Your task to perform on an android device: all mails in gmail Image 0: 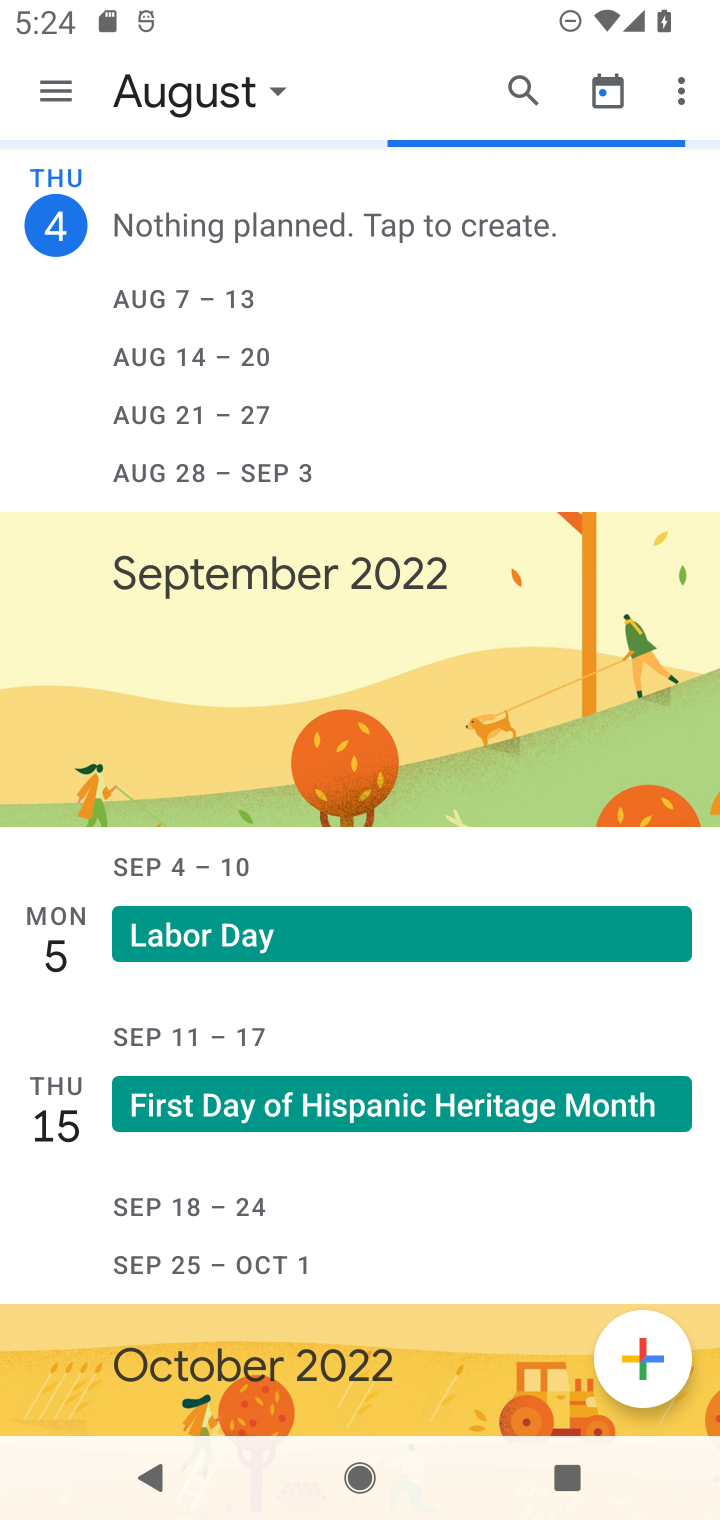
Step 0: press home button
Your task to perform on an android device: all mails in gmail Image 1: 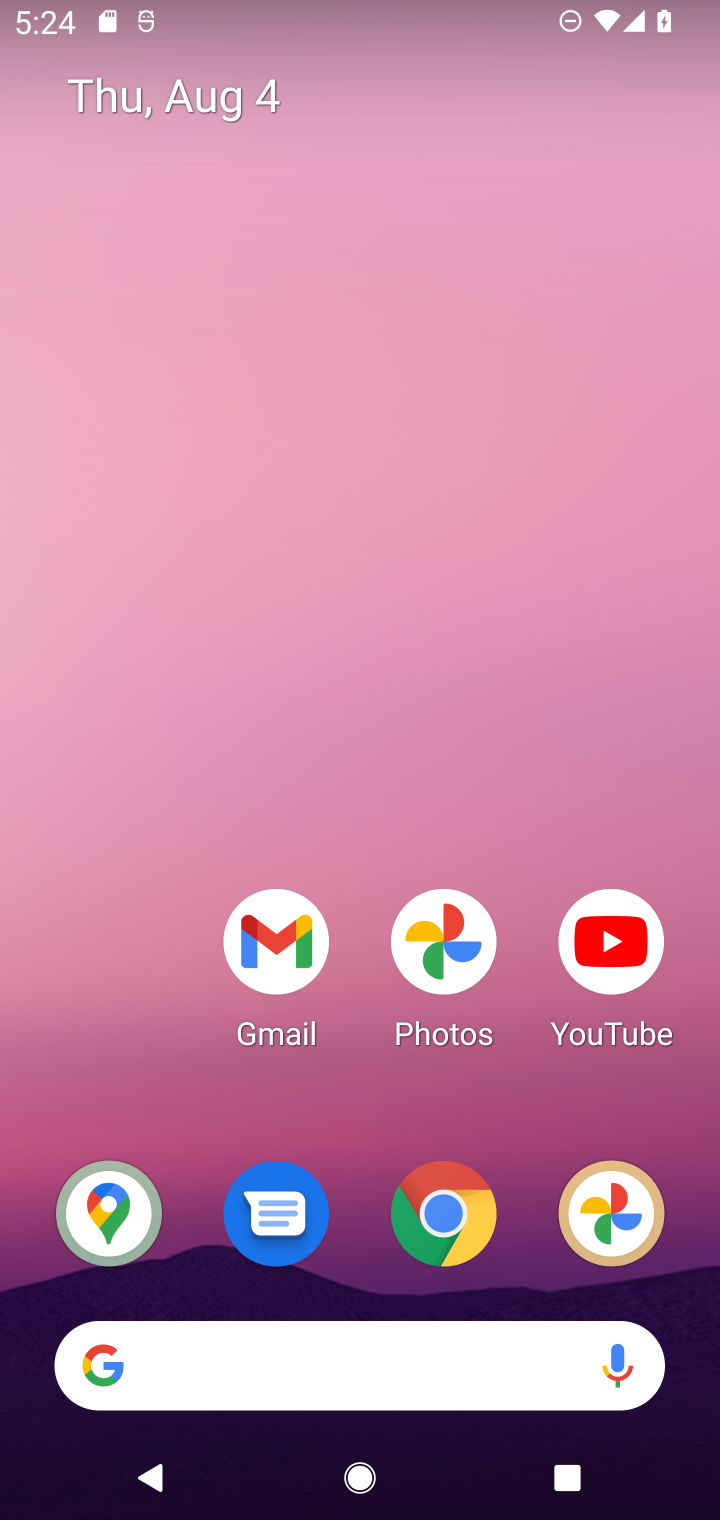
Step 1: drag from (177, 1140) to (188, 419)
Your task to perform on an android device: all mails in gmail Image 2: 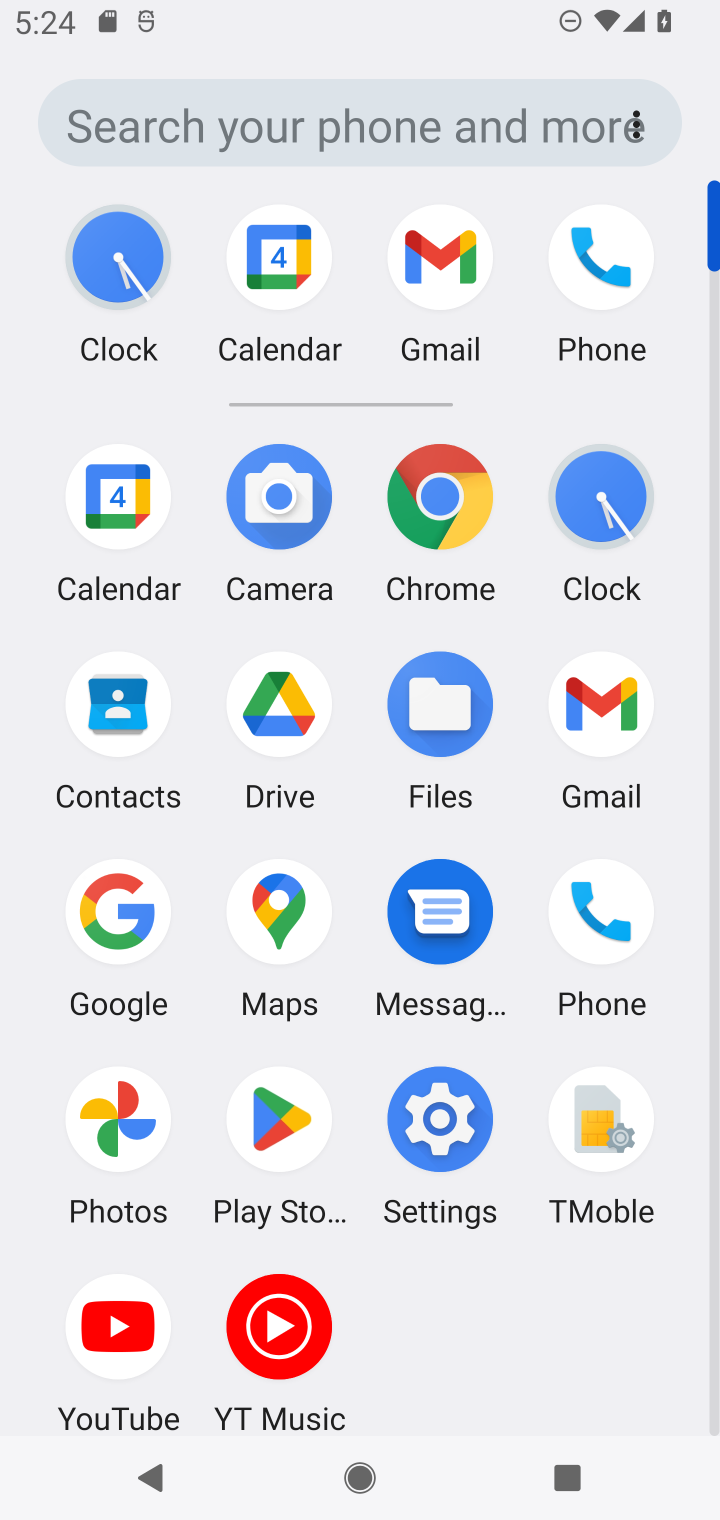
Step 2: click (595, 723)
Your task to perform on an android device: all mails in gmail Image 3: 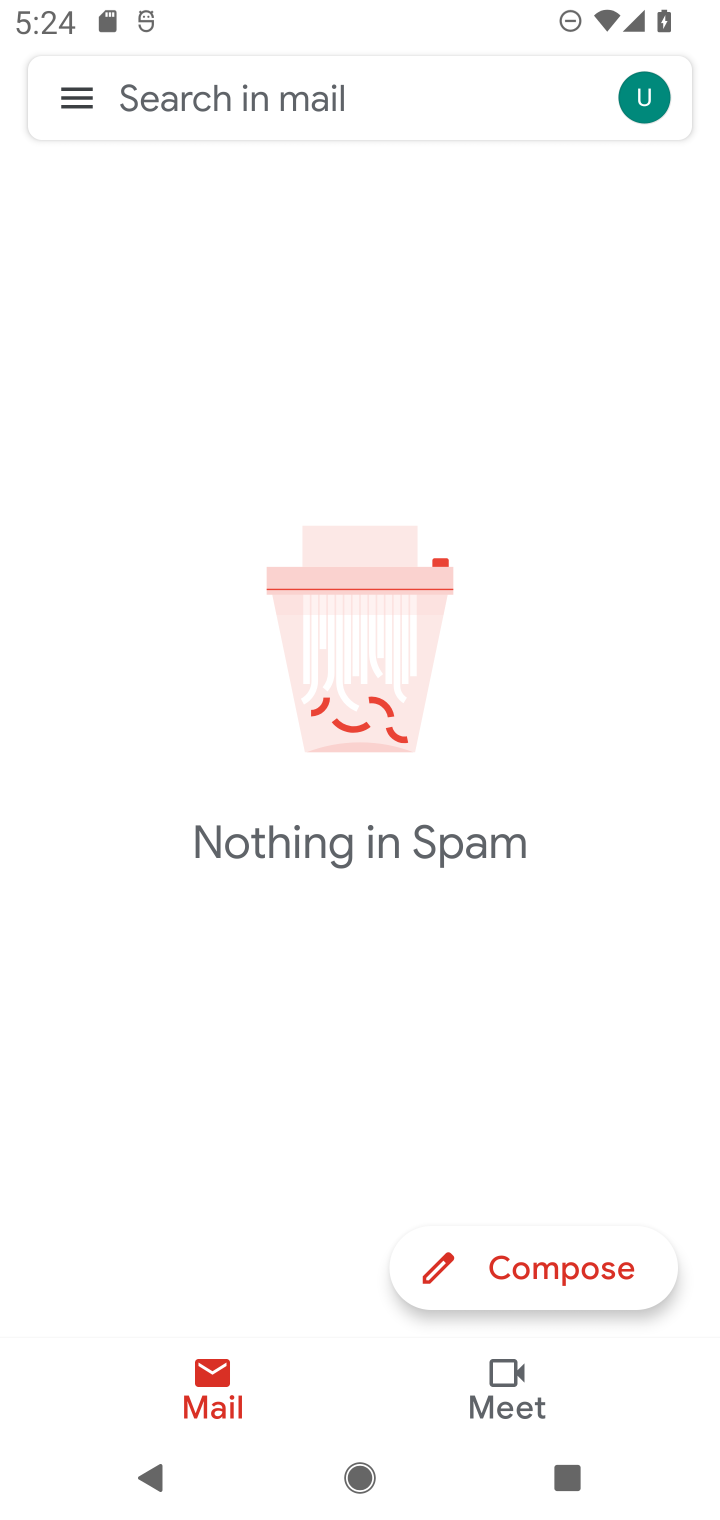
Step 3: click (79, 98)
Your task to perform on an android device: all mails in gmail Image 4: 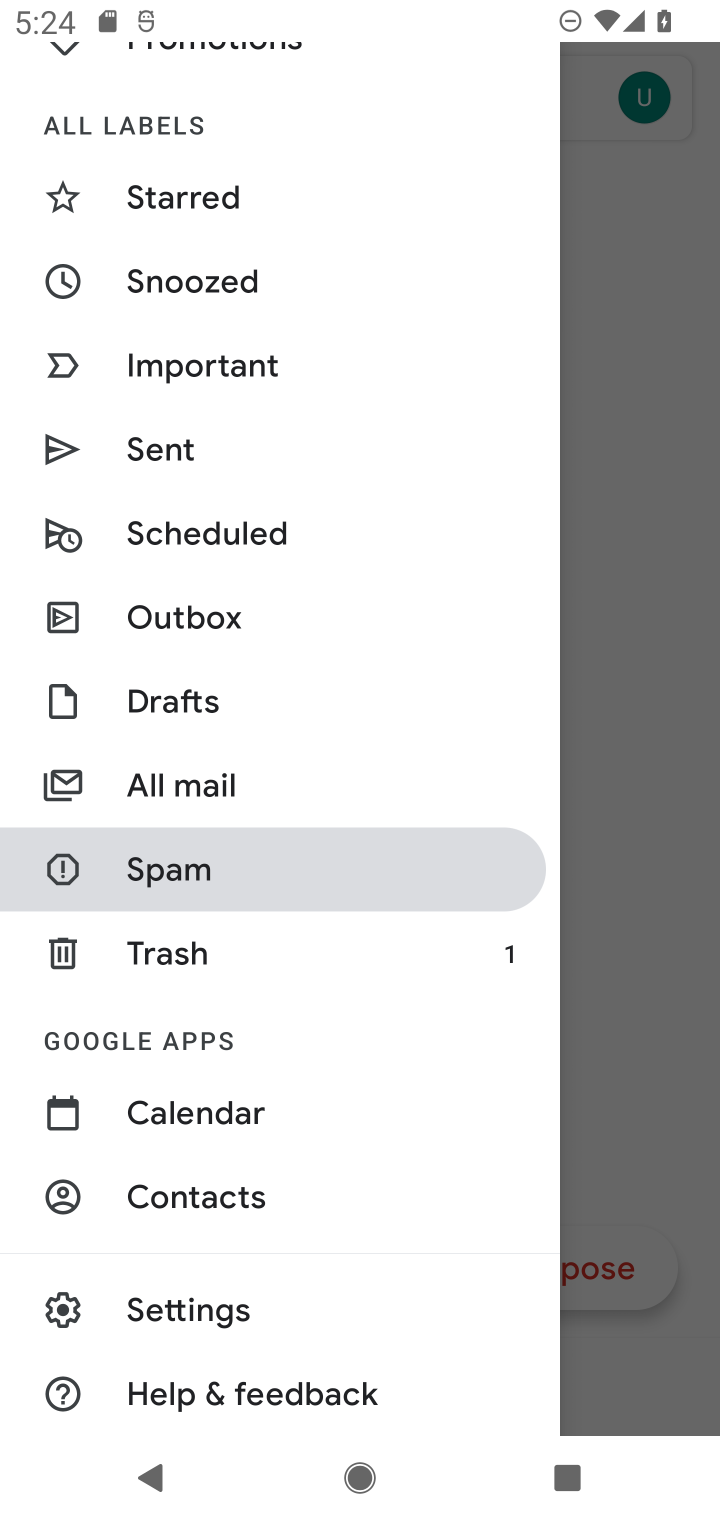
Step 4: click (223, 788)
Your task to perform on an android device: all mails in gmail Image 5: 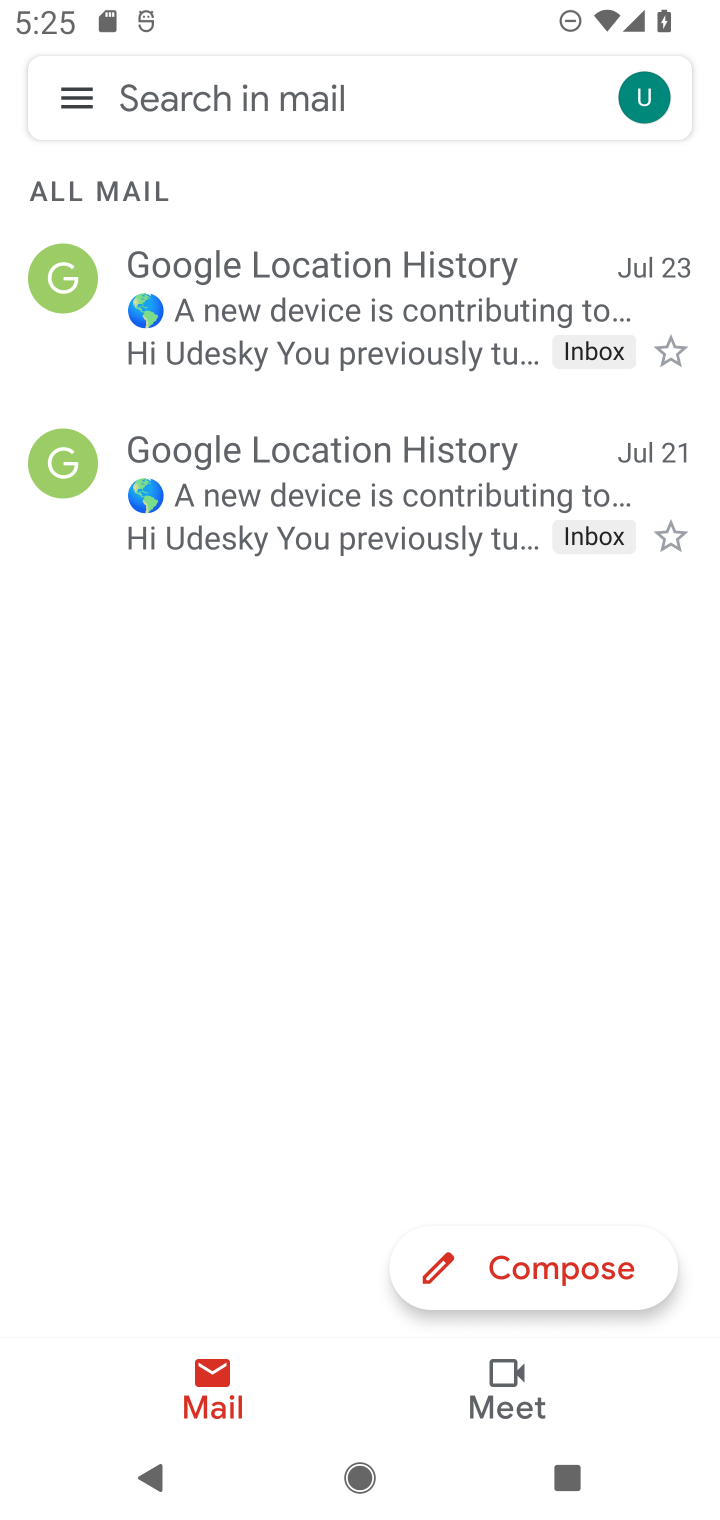
Step 5: task complete